Your task to perform on an android device: move an email to a new category in the gmail app Image 0: 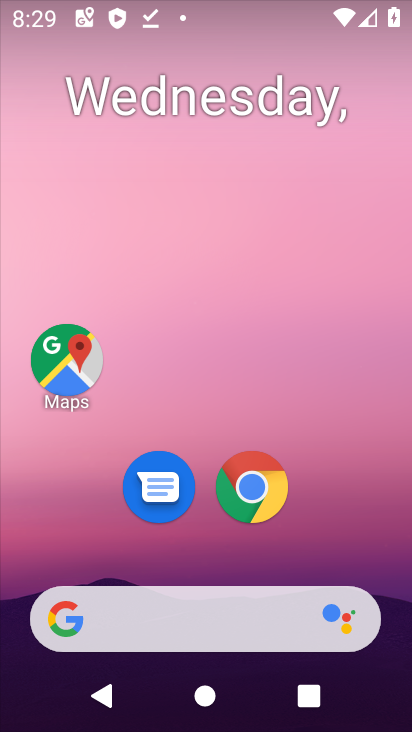
Step 0: drag from (275, 705) to (227, 250)
Your task to perform on an android device: move an email to a new category in the gmail app Image 1: 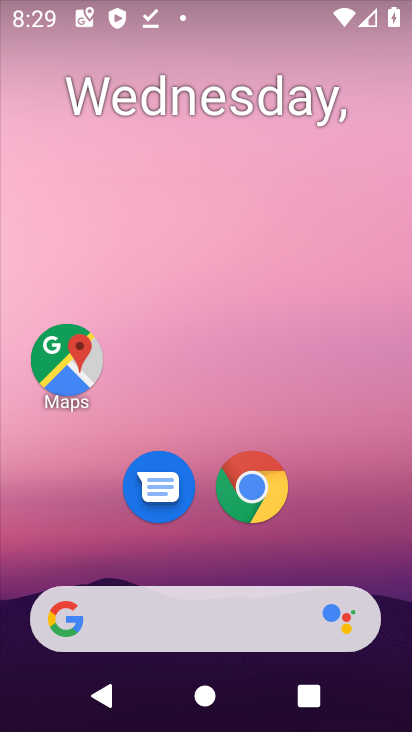
Step 1: drag from (258, 713) to (239, 115)
Your task to perform on an android device: move an email to a new category in the gmail app Image 2: 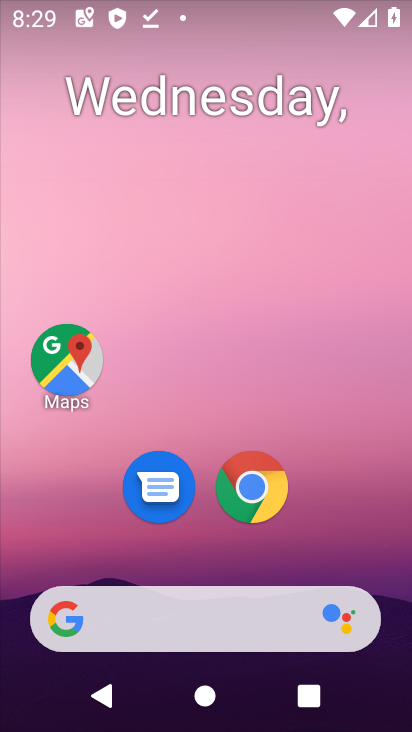
Step 2: drag from (336, 689) to (192, 76)
Your task to perform on an android device: move an email to a new category in the gmail app Image 3: 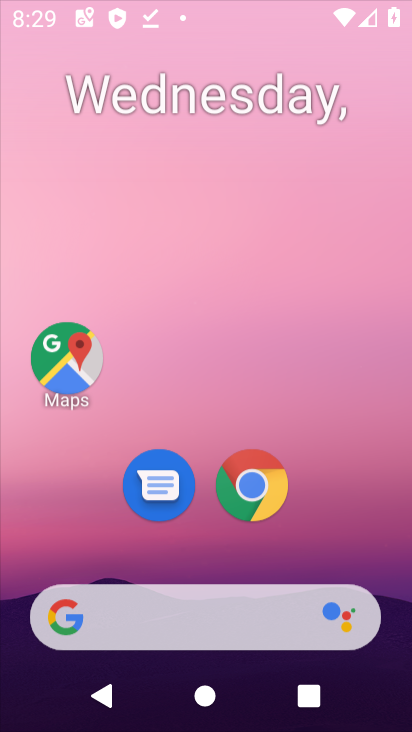
Step 3: press back button
Your task to perform on an android device: move an email to a new category in the gmail app Image 4: 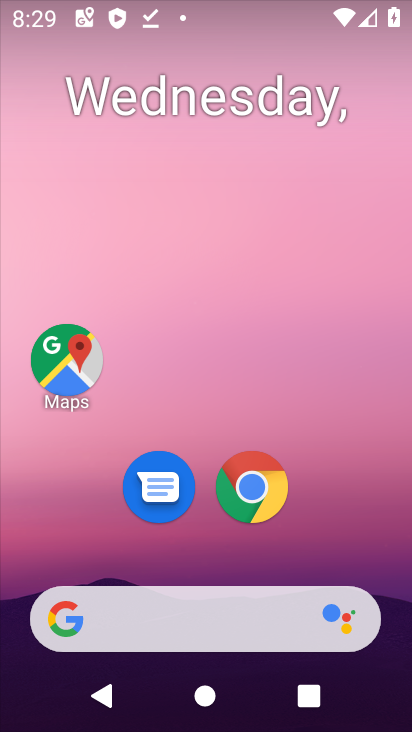
Step 4: drag from (227, 717) to (217, 232)
Your task to perform on an android device: move an email to a new category in the gmail app Image 5: 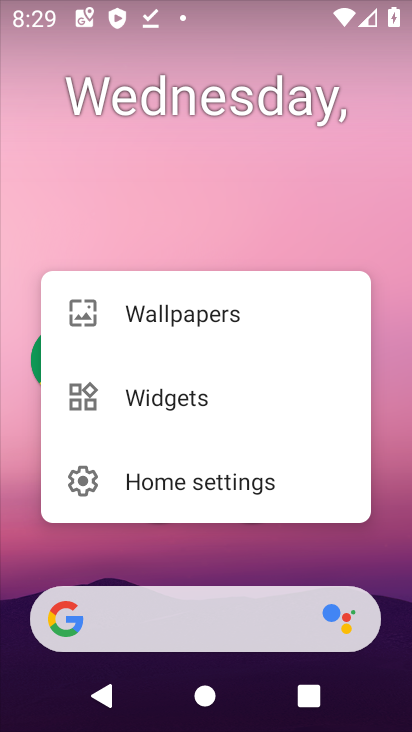
Step 5: click (186, 168)
Your task to perform on an android device: move an email to a new category in the gmail app Image 6: 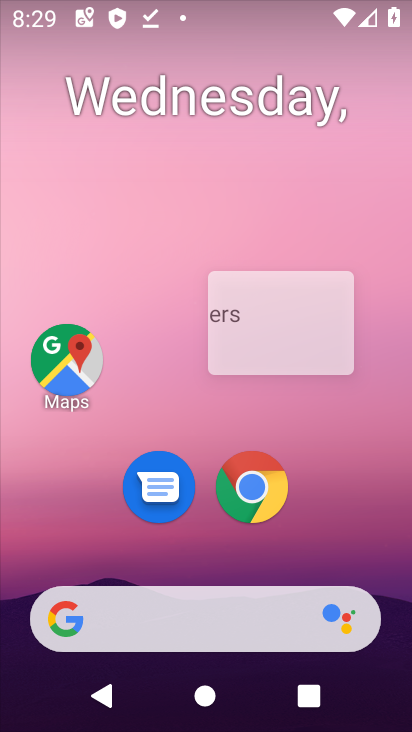
Step 6: click (187, 167)
Your task to perform on an android device: move an email to a new category in the gmail app Image 7: 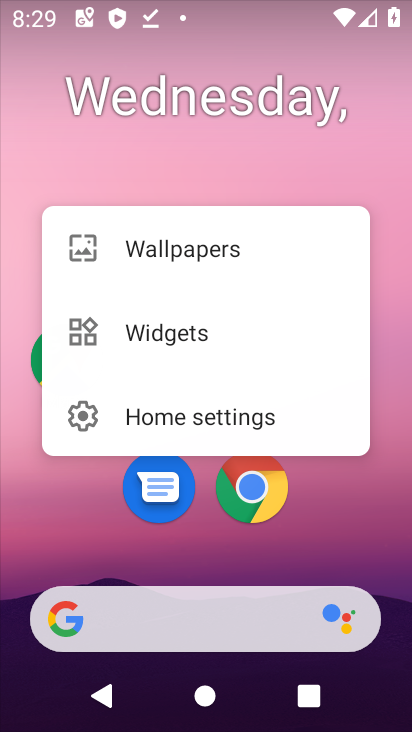
Step 7: click (188, 164)
Your task to perform on an android device: move an email to a new category in the gmail app Image 8: 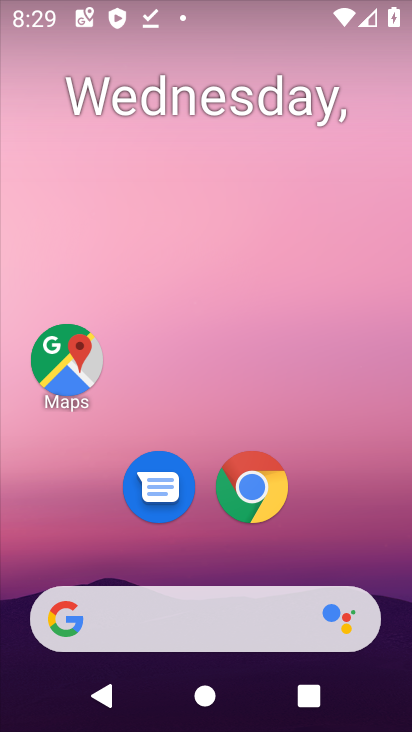
Step 8: drag from (252, 665) to (238, 12)
Your task to perform on an android device: move an email to a new category in the gmail app Image 9: 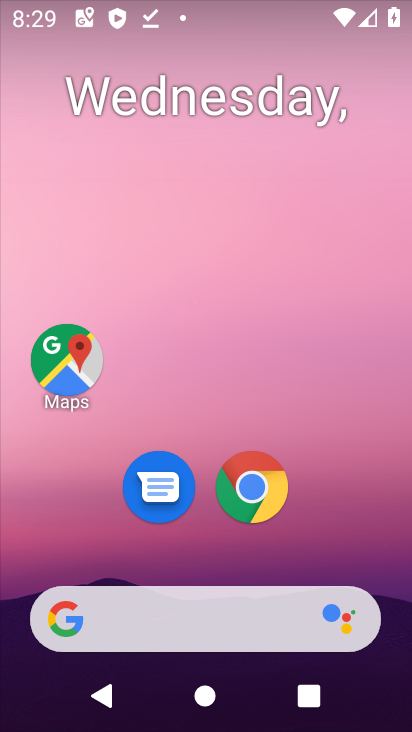
Step 9: drag from (280, 685) to (261, 180)
Your task to perform on an android device: move an email to a new category in the gmail app Image 10: 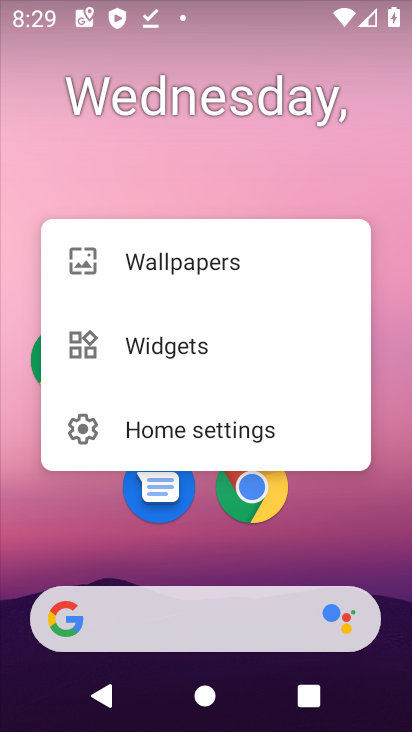
Step 10: drag from (278, 684) to (259, 72)
Your task to perform on an android device: move an email to a new category in the gmail app Image 11: 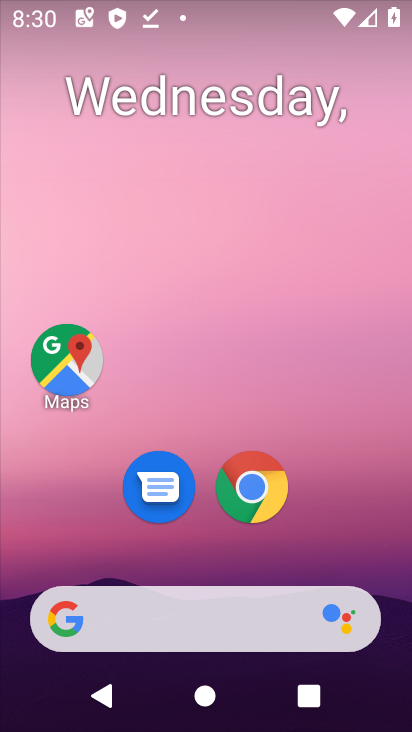
Step 11: drag from (253, 688) to (190, 197)
Your task to perform on an android device: move an email to a new category in the gmail app Image 12: 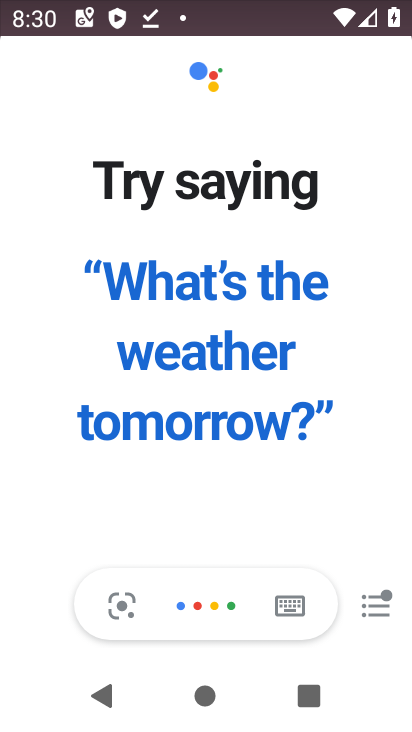
Step 12: drag from (247, 711) to (266, 215)
Your task to perform on an android device: move an email to a new category in the gmail app Image 13: 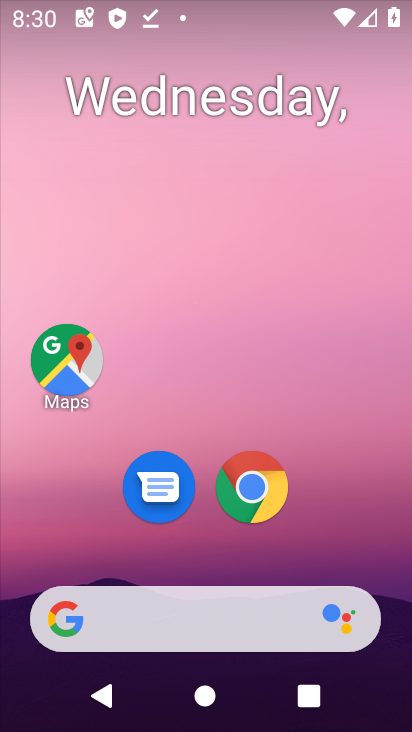
Step 13: drag from (357, 676) to (245, 282)
Your task to perform on an android device: move an email to a new category in the gmail app Image 14: 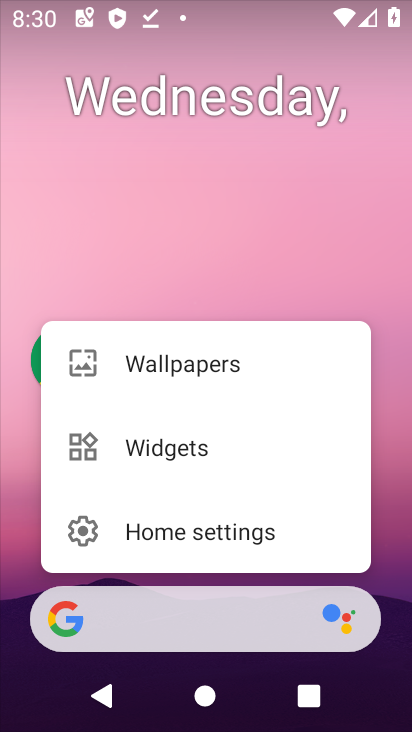
Step 14: click (168, 231)
Your task to perform on an android device: move an email to a new category in the gmail app Image 15: 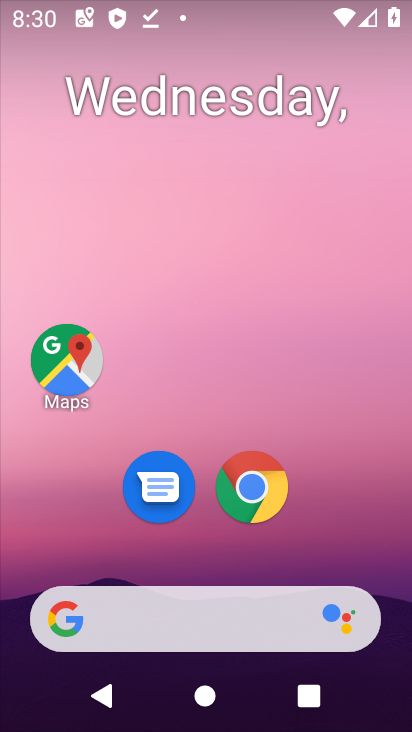
Step 15: drag from (261, 701) to (192, 232)
Your task to perform on an android device: move an email to a new category in the gmail app Image 16: 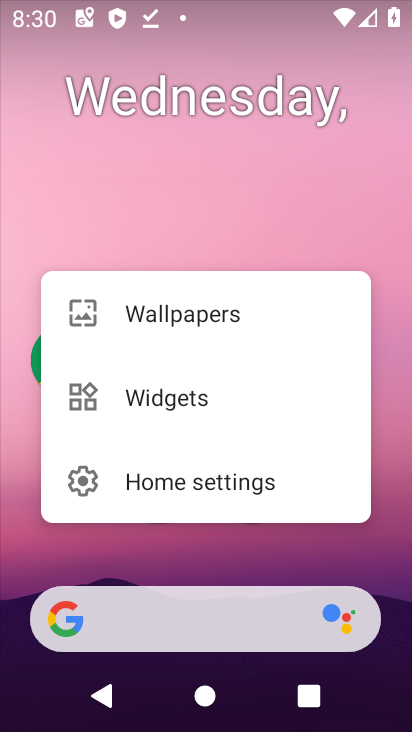
Step 16: click (168, 290)
Your task to perform on an android device: move an email to a new category in the gmail app Image 17: 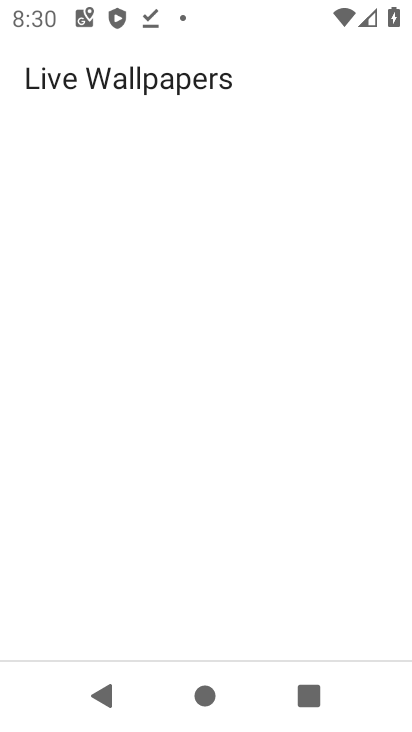
Step 17: drag from (220, 605) to (168, 315)
Your task to perform on an android device: move an email to a new category in the gmail app Image 18: 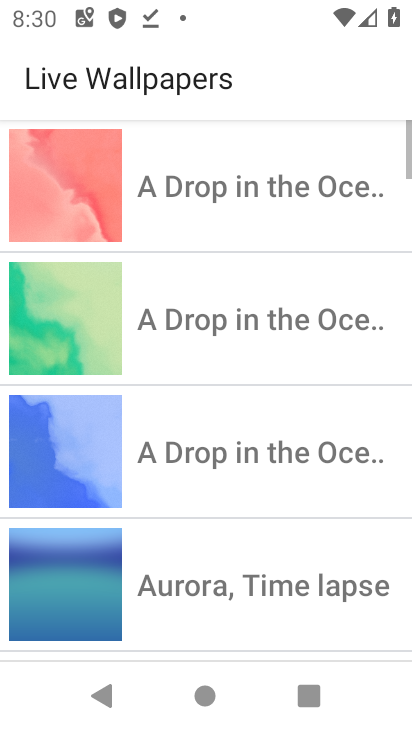
Step 18: press back button
Your task to perform on an android device: move an email to a new category in the gmail app Image 19: 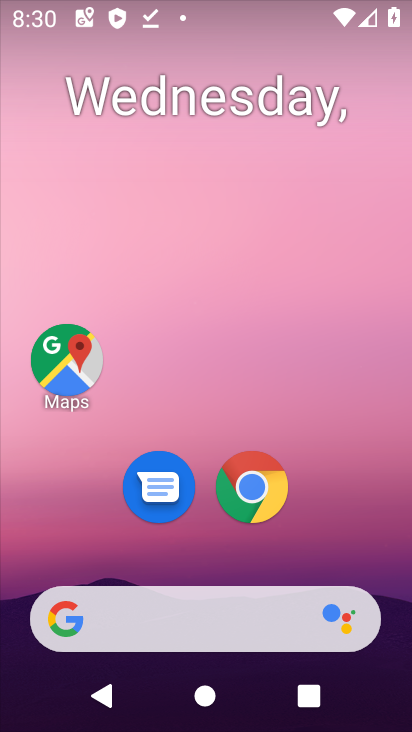
Step 19: drag from (266, 705) to (205, 280)
Your task to perform on an android device: move an email to a new category in the gmail app Image 20: 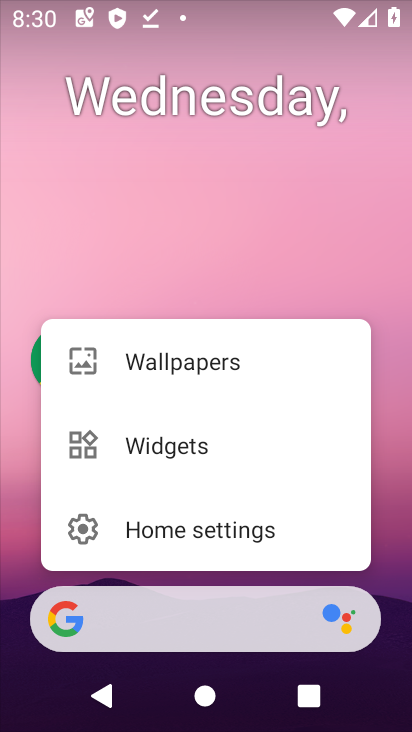
Step 20: drag from (361, 691) to (295, 180)
Your task to perform on an android device: move an email to a new category in the gmail app Image 21: 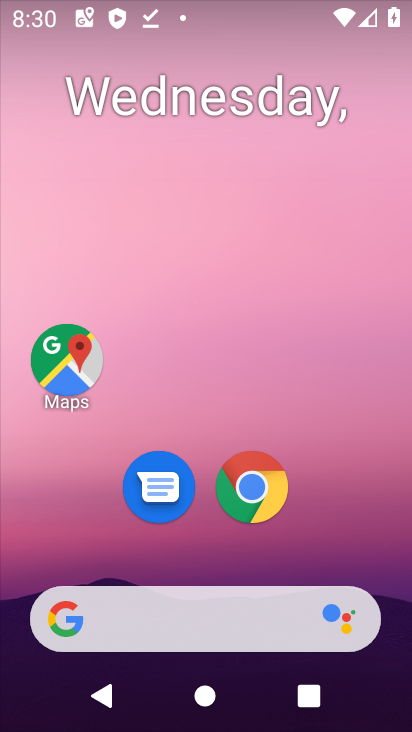
Step 21: drag from (261, 716) to (196, 230)
Your task to perform on an android device: move an email to a new category in the gmail app Image 22: 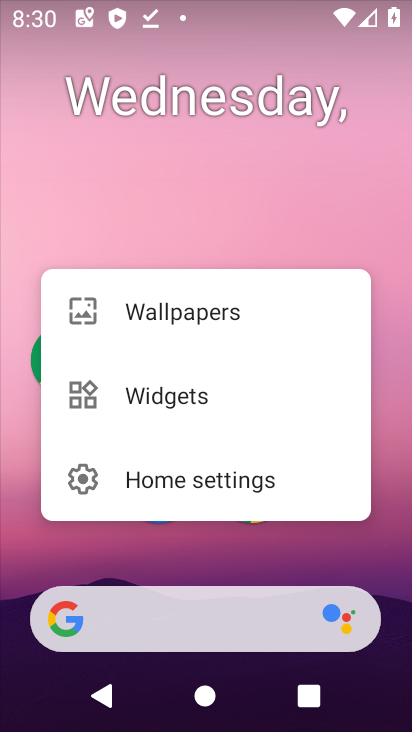
Step 22: drag from (276, 606) to (205, 121)
Your task to perform on an android device: move an email to a new category in the gmail app Image 23: 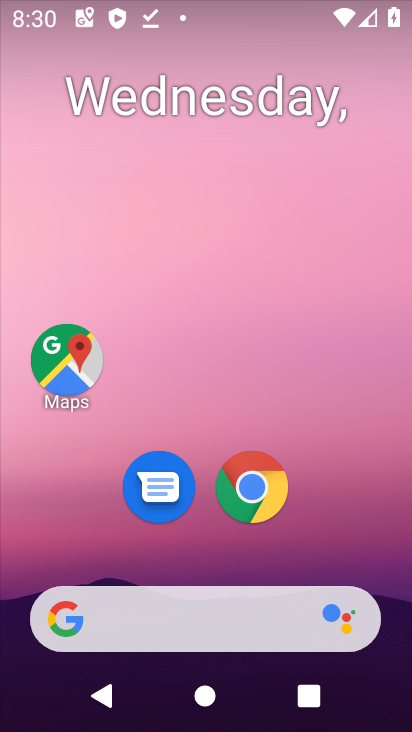
Step 23: drag from (248, 536) to (246, 110)
Your task to perform on an android device: move an email to a new category in the gmail app Image 24: 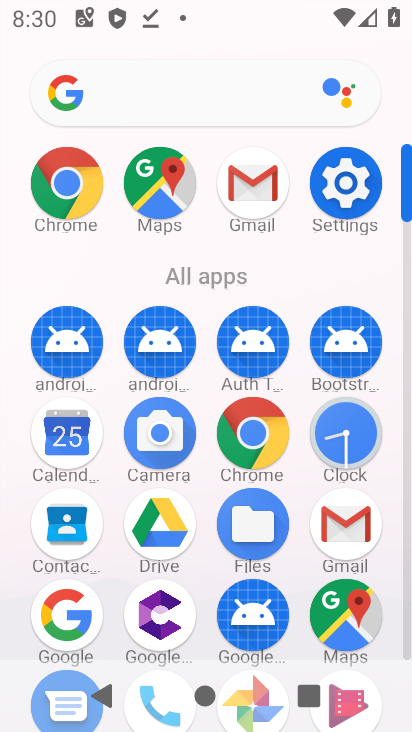
Step 24: drag from (232, 598) to (220, 284)
Your task to perform on an android device: move an email to a new category in the gmail app Image 25: 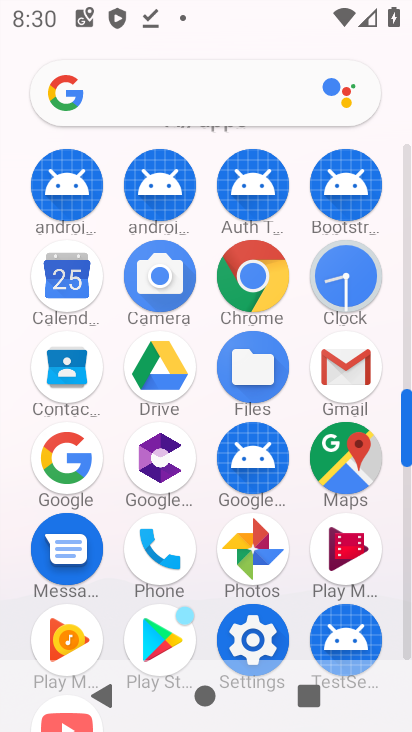
Step 25: click (355, 356)
Your task to perform on an android device: move an email to a new category in the gmail app Image 26: 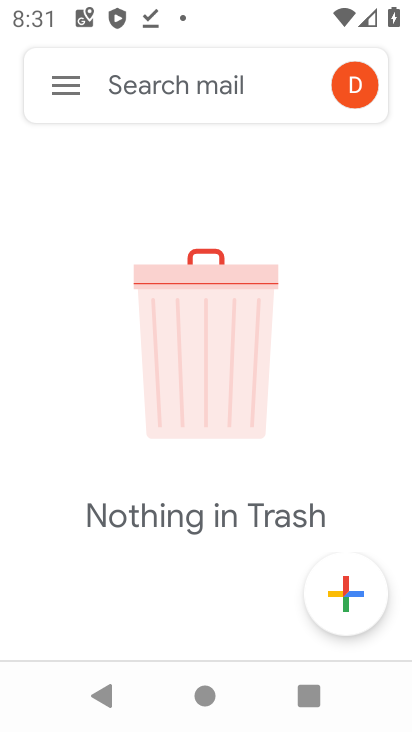
Step 26: click (50, 85)
Your task to perform on an android device: move an email to a new category in the gmail app Image 27: 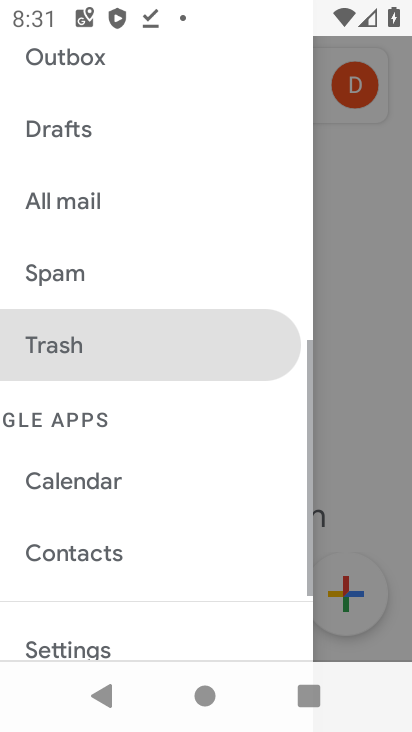
Step 27: click (61, 80)
Your task to perform on an android device: move an email to a new category in the gmail app Image 28: 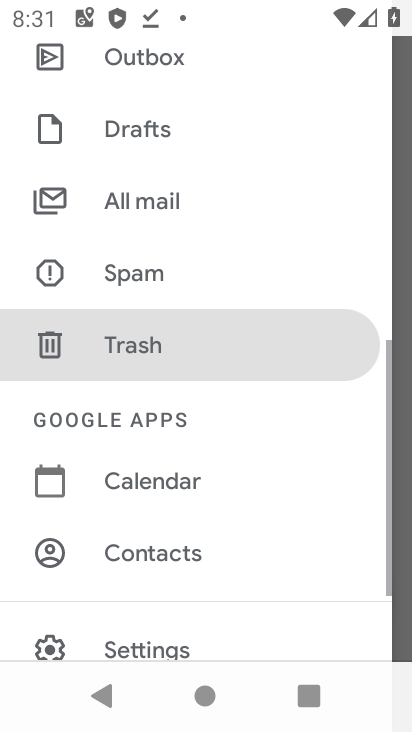
Step 28: click (64, 78)
Your task to perform on an android device: move an email to a new category in the gmail app Image 29: 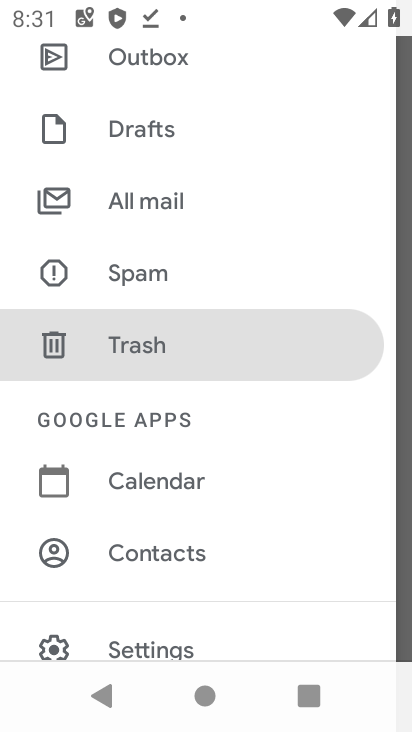
Step 29: drag from (230, 436) to (289, 628)
Your task to perform on an android device: move an email to a new category in the gmail app Image 30: 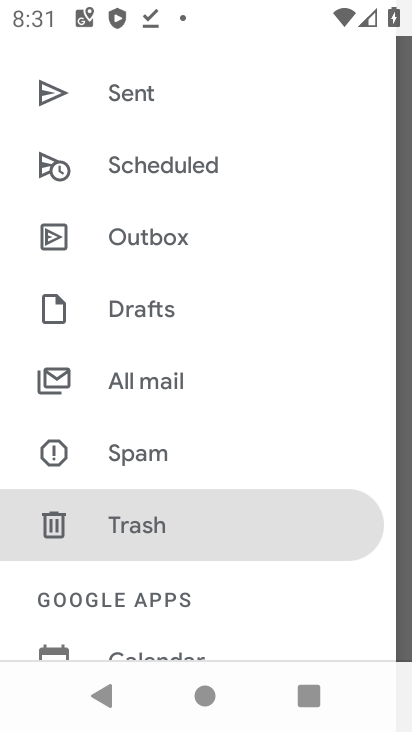
Step 30: click (151, 375)
Your task to perform on an android device: move an email to a new category in the gmail app Image 31: 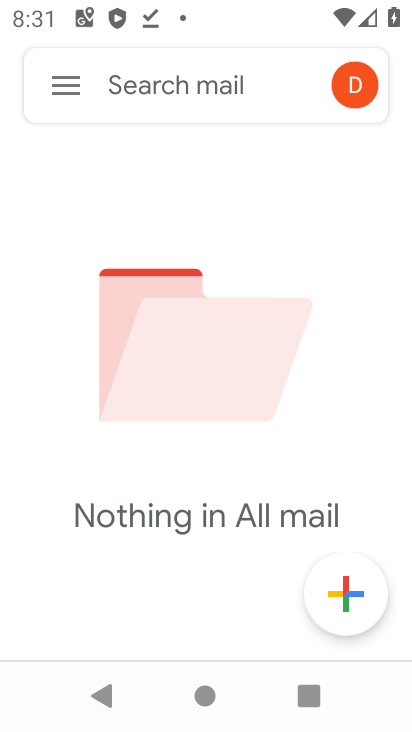
Step 31: task complete